Your task to perform on an android device: refresh tabs in the chrome app Image 0: 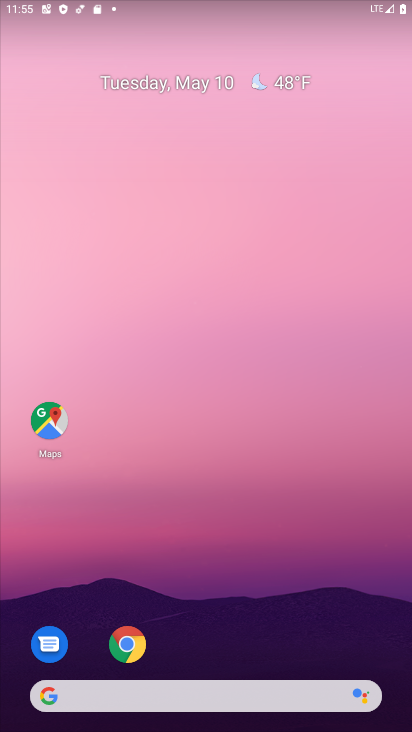
Step 0: drag from (239, 653) to (290, 111)
Your task to perform on an android device: refresh tabs in the chrome app Image 1: 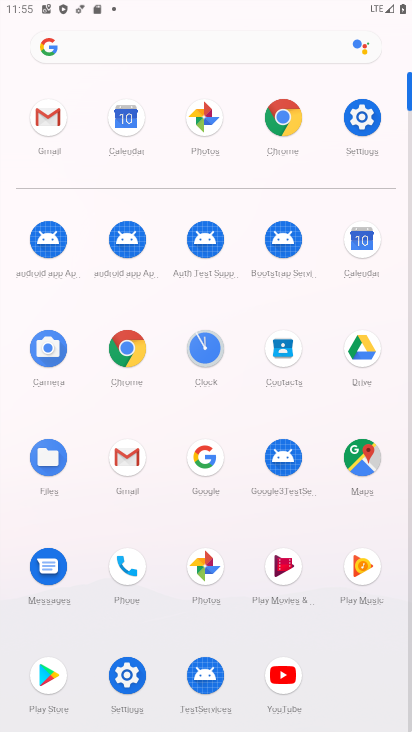
Step 1: click (139, 351)
Your task to perform on an android device: refresh tabs in the chrome app Image 2: 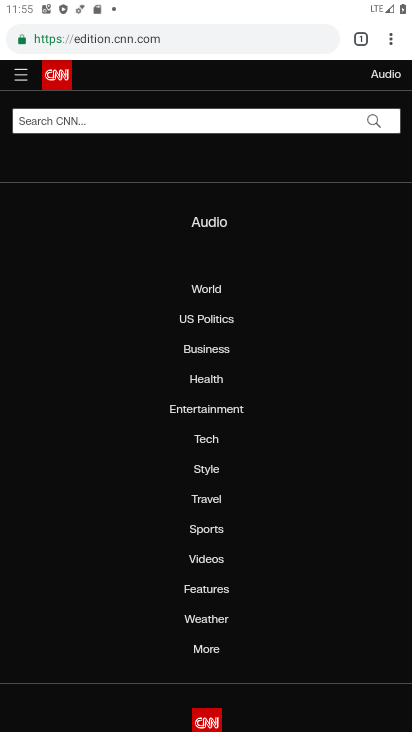
Step 2: click (399, 49)
Your task to perform on an android device: refresh tabs in the chrome app Image 3: 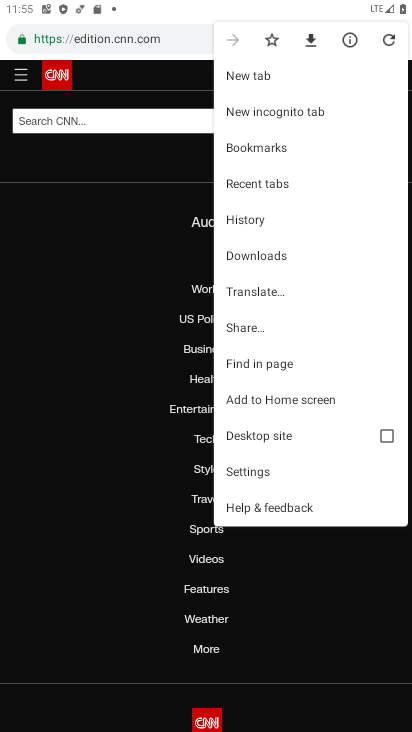
Step 3: click (393, 43)
Your task to perform on an android device: refresh tabs in the chrome app Image 4: 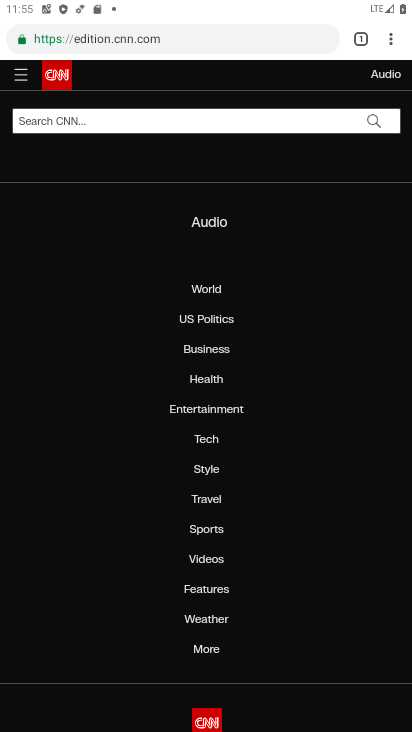
Step 4: task complete